Your task to perform on an android device: turn off location Image 0: 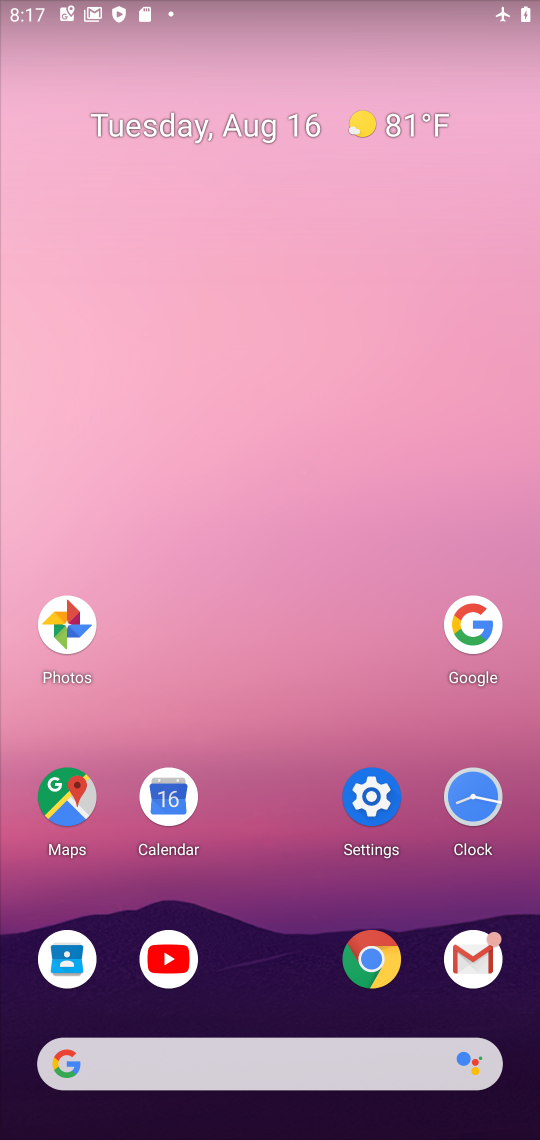
Step 0: click (372, 789)
Your task to perform on an android device: turn off location Image 1: 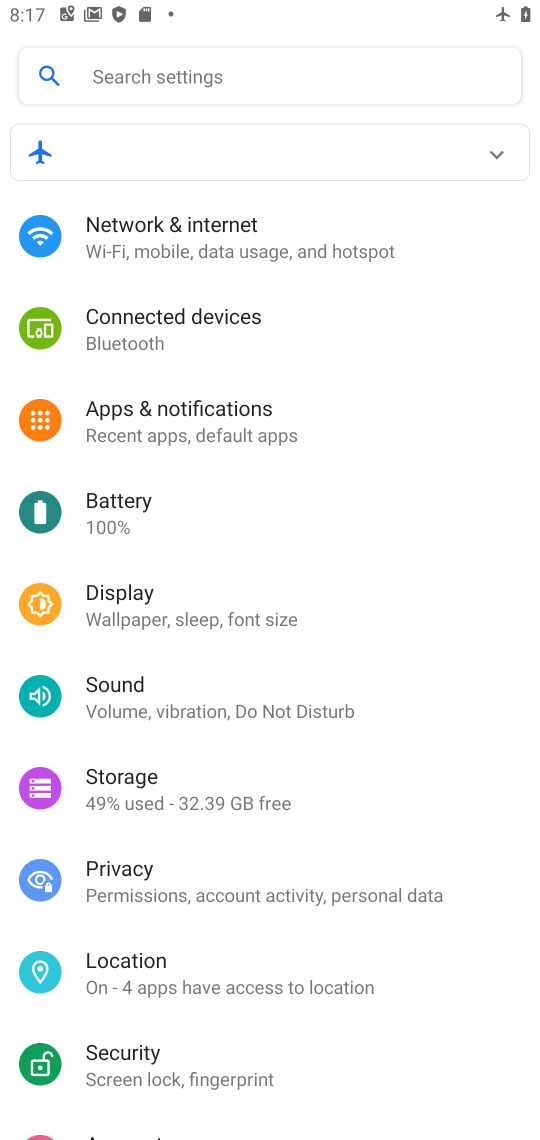
Step 1: click (133, 956)
Your task to perform on an android device: turn off location Image 2: 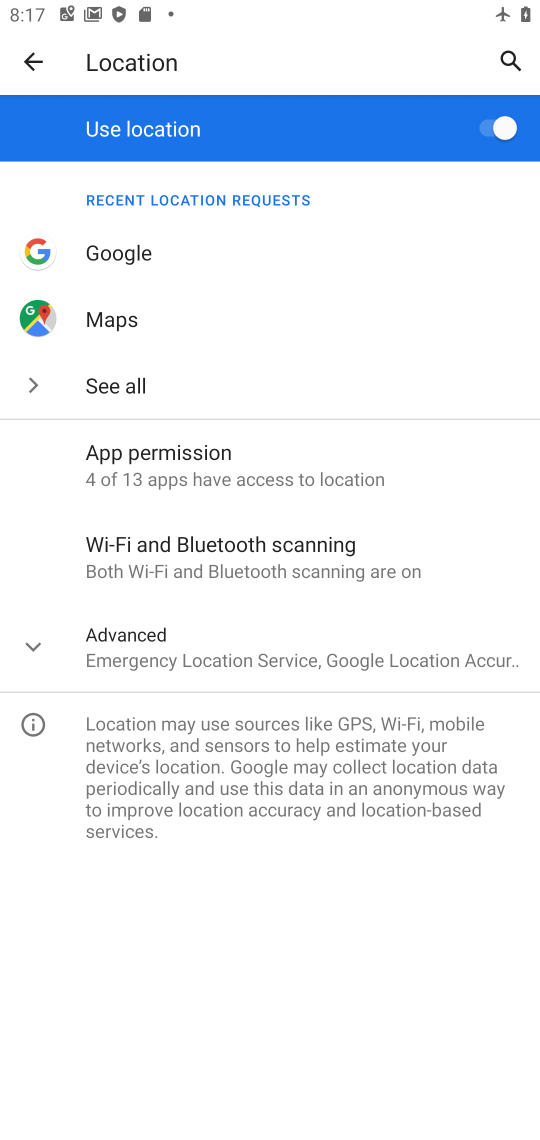
Step 2: click (499, 123)
Your task to perform on an android device: turn off location Image 3: 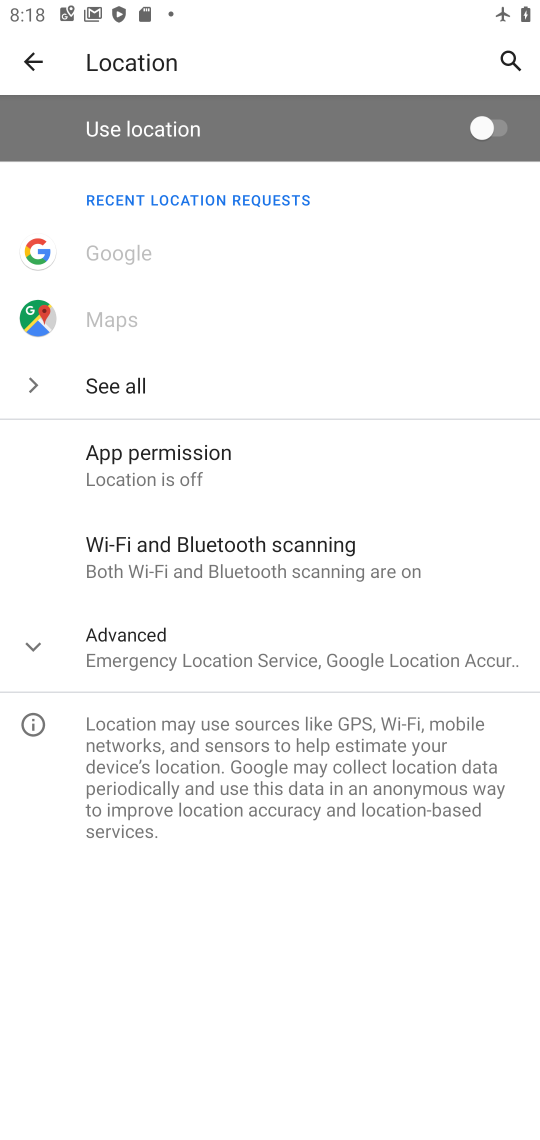
Step 3: task complete